Your task to perform on an android device: delete the emails in spam in the gmail app Image 0: 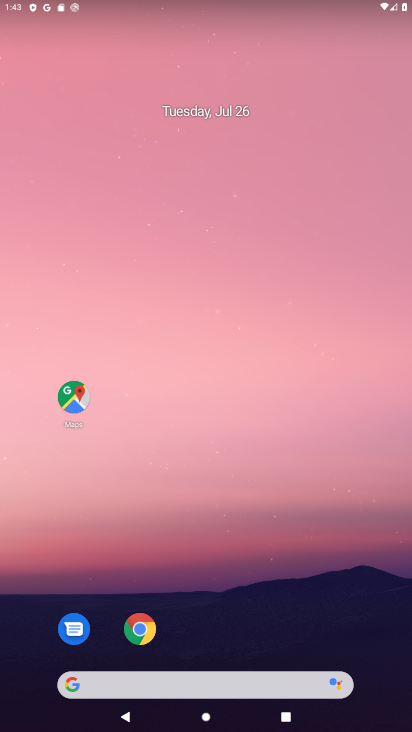
Step 0: drag from (317, 611) to (137, 136)
Your task to perform on an android device: delete the emails in spam in the gmail app Image 1: 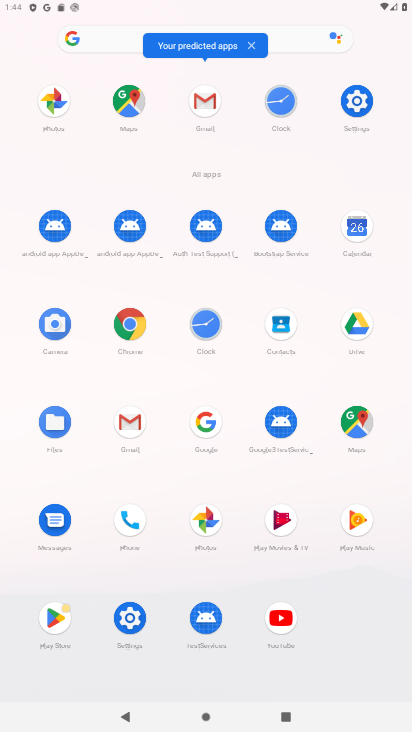
Step 1: click (128, 423)
Your task to perform on an android device: delete the emails in spam in the gmail app Image 2: 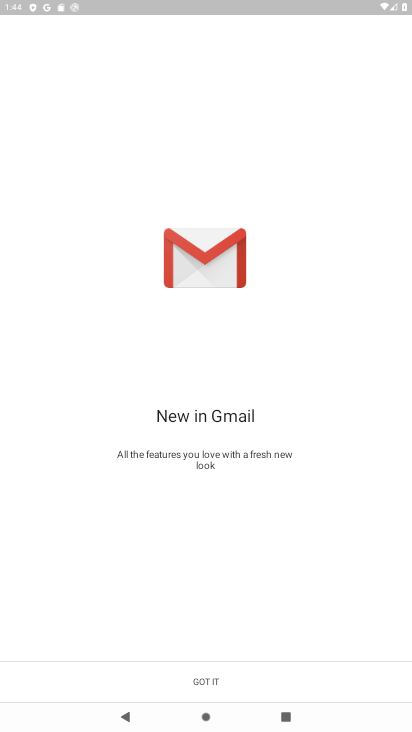
Step 2: click (224, 688)
Your task to perform on an android device: delete the emails in spam in the gmail app Image 3: 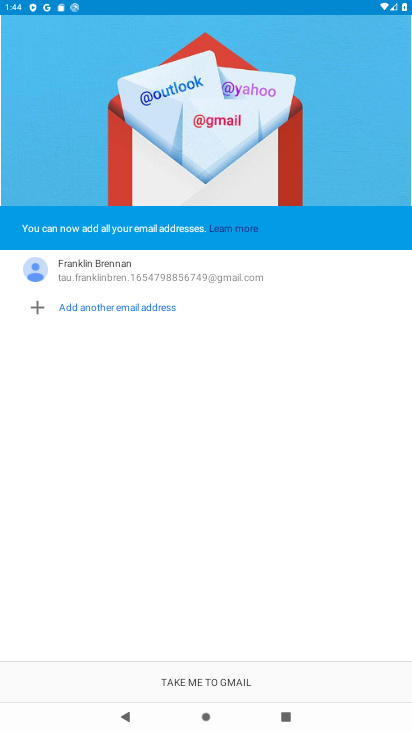
Step 3: click (224, 688)
Your task to perform on an android device: delete the emails in spam in the gmail app Image 4: 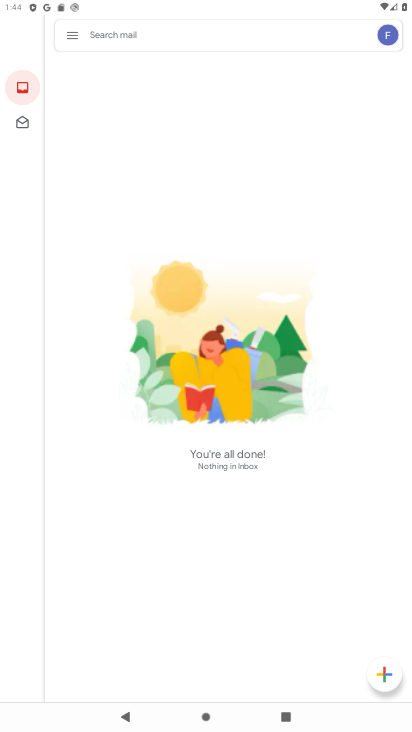
Step 4: task complete